Your task to perform on an android device: change the clock style Image 0: 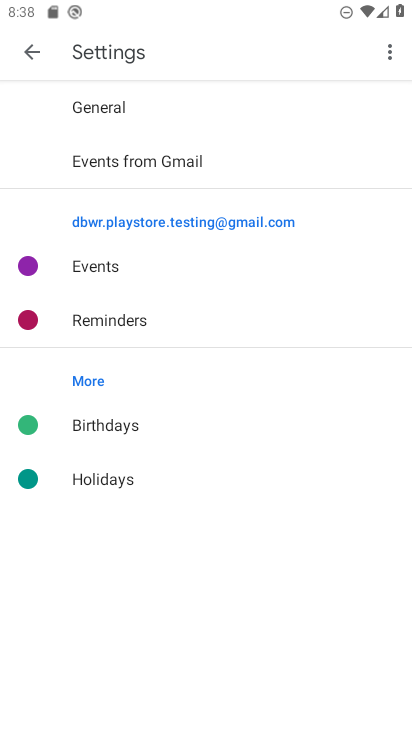
Step 0: press home button
Your task to perform on an android device: change the clock style Image 1: 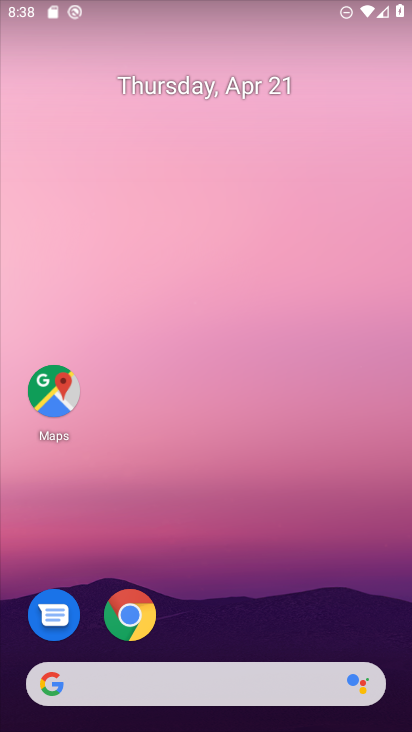
Step 1: drag from (323, 415) to (381, 71)
Your task to perform on an android device: change the clock style Image 2: 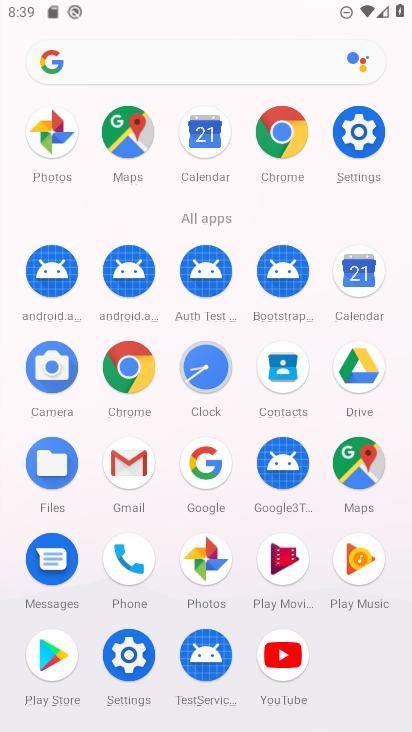
Step 2: click (207, 366)
Your task to perform on an android device: change the clock style Image 3: 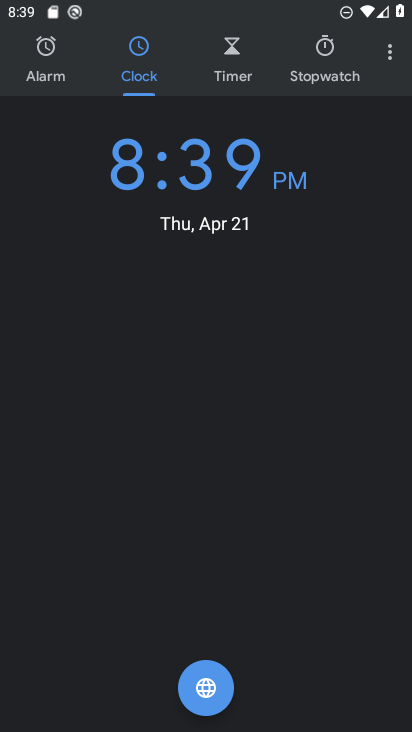
Step 3: click (383, 49)
Your task to perform on an android device: change the clock style Image 4: 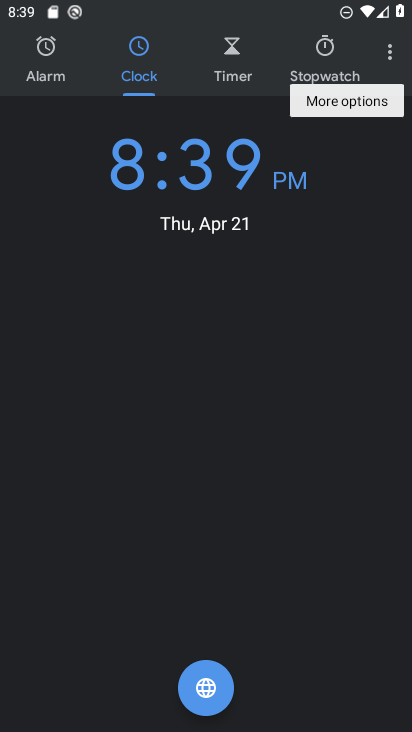
Step 4: click (407, 56)
Your task to perform on an android device: change the clock style Image 5: 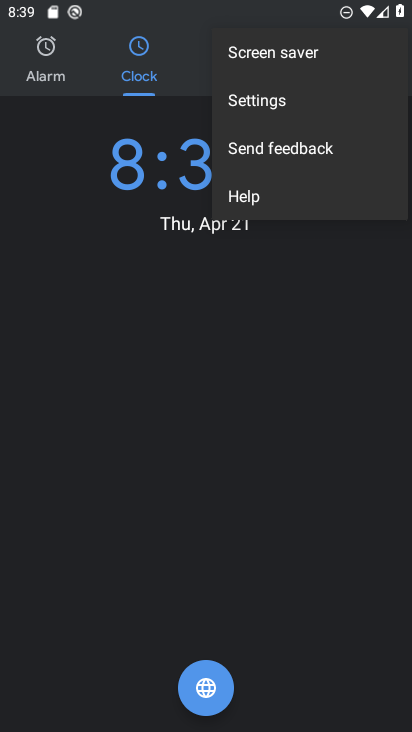
Step 5: click (247, 100)
Your task to perform on an android device: change the clock style Image 6: 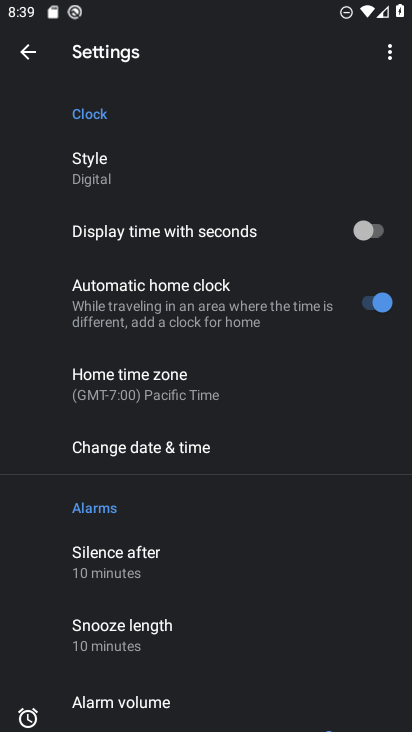
Step 6: click (86, 165)
Your task to perform on an android device: change the clock style Image 7: 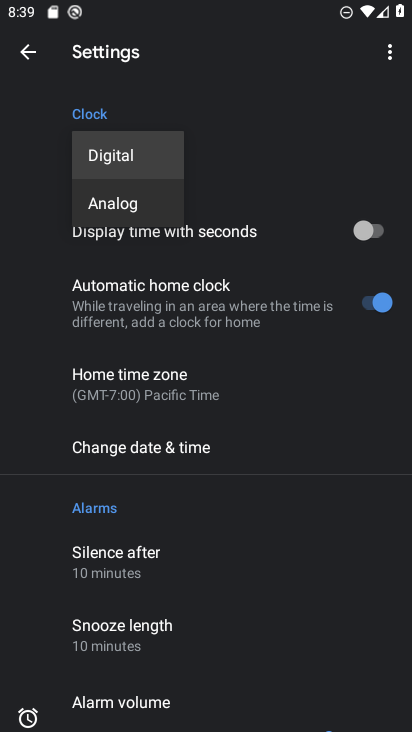
Step 7: click (297, 149)
Your task to perform on an android device: change the clock style Image 8: 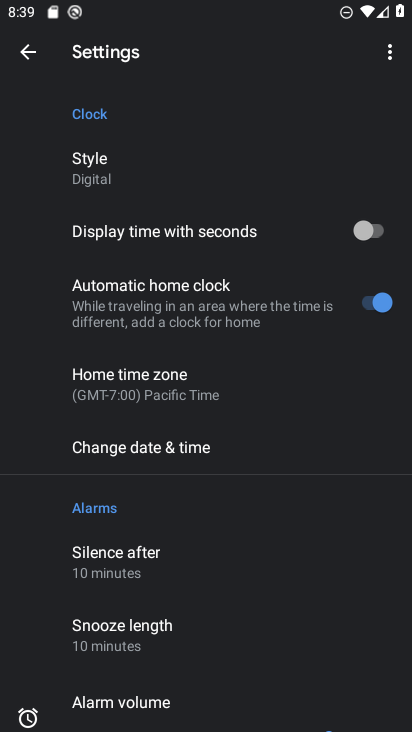
Step 8: click (78, 154)
Your task to perform on an android device: change the clock style Image 9: 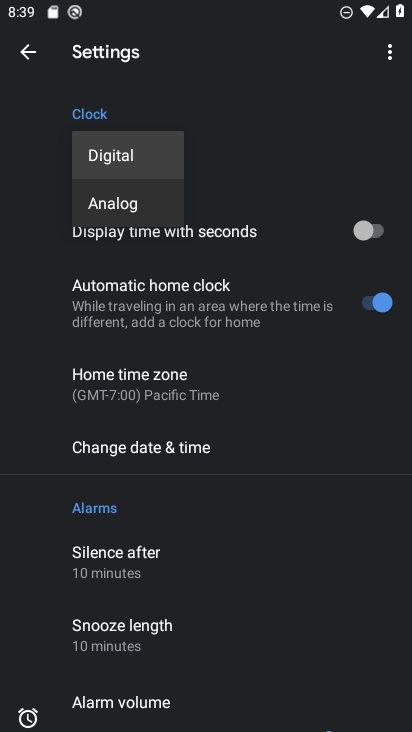
Step 9: click (115, 196)
Your task to perform on an android device: change the clock style Image 10: 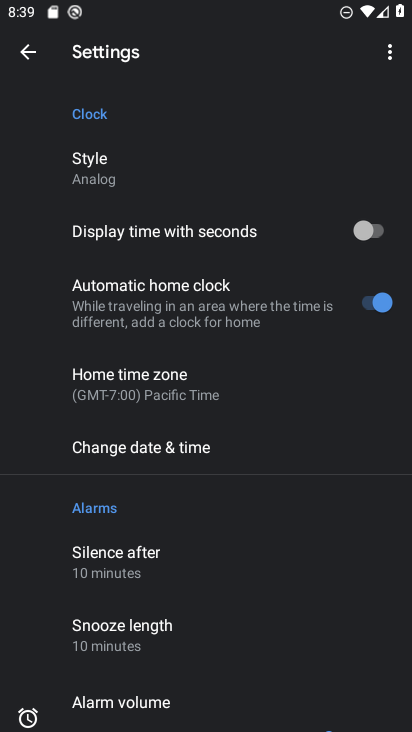
Step 10: task complete